Your task to perform on an android device: turn notification dots on Image 0: 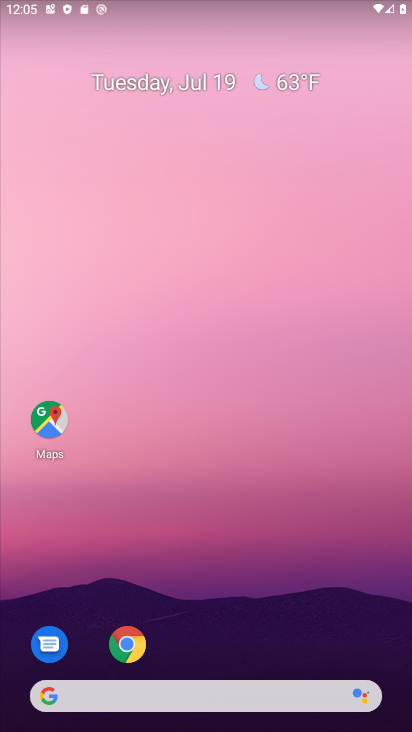
Step 0: drag from (213, 730) to (215, 262)
Your task to perform on an android device: turn notification dots on Image 1: 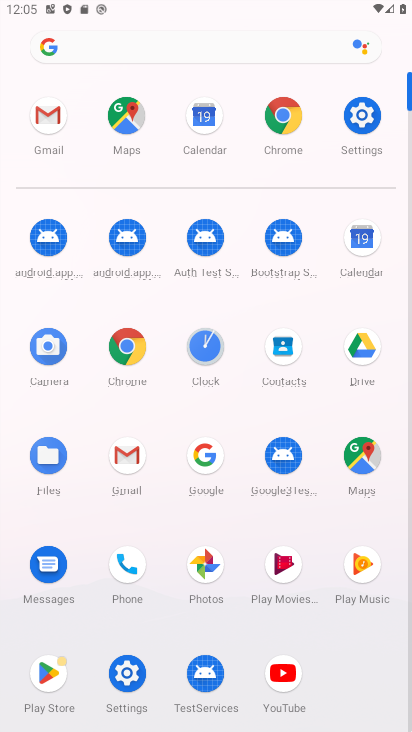
Step 1: click (365, 113)
Your task to perform on an android device: turn notification dots on Image 2: 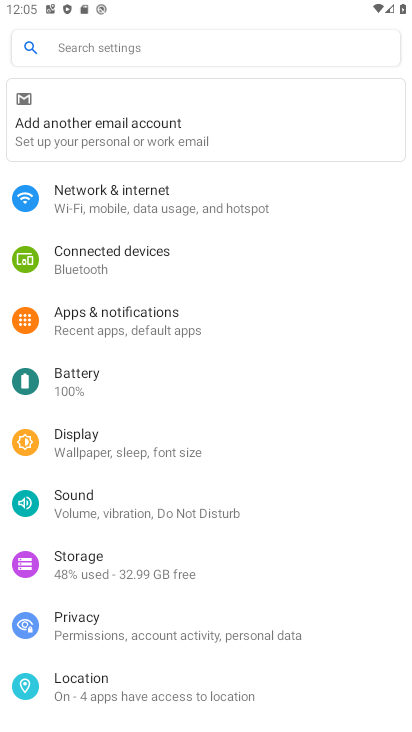
Step 2: click (119, 318)
Your task to perform on an android device: turn notification dots on Image 3: 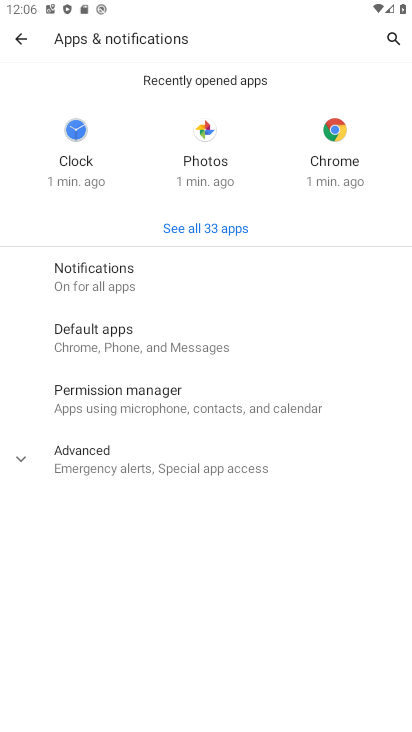
Step 3: click (113, 448)
Your task to perform on an android device: turn notification dots on Image 4: 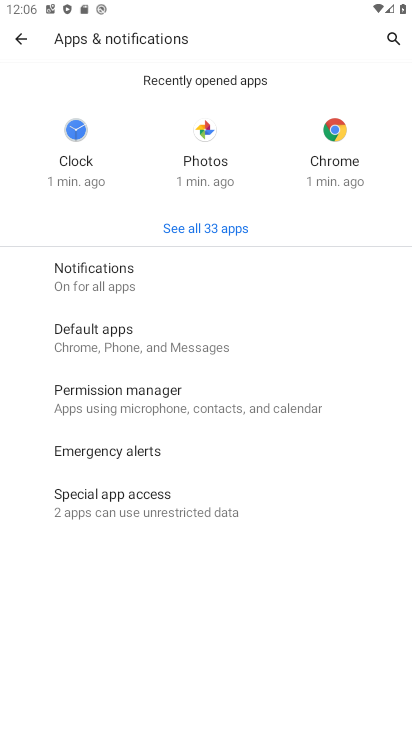
Step 4: click (68, 276)
Your task to perform on an android device: turn notification dots on Image 5: 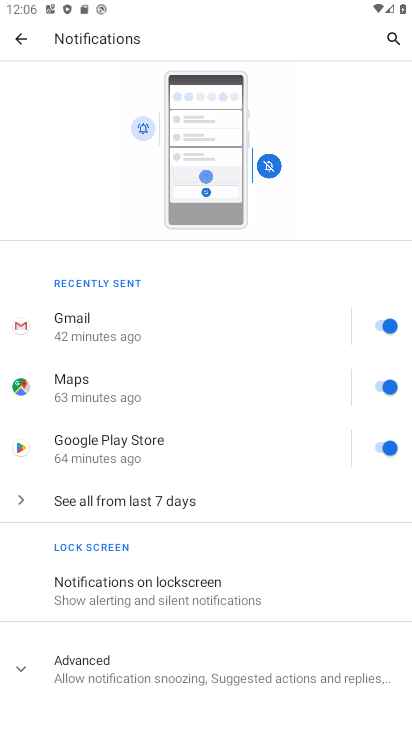
Step 5: click (203, 679)
Your task to perform on an android device: turn notification dots on Image 6: 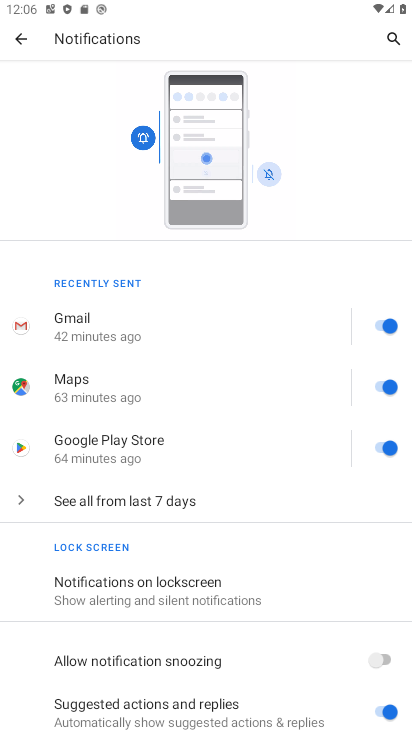
Step 6: task complete